Your task to perform on an android device: Search for vegetarian restaurants on Maps Image 0: 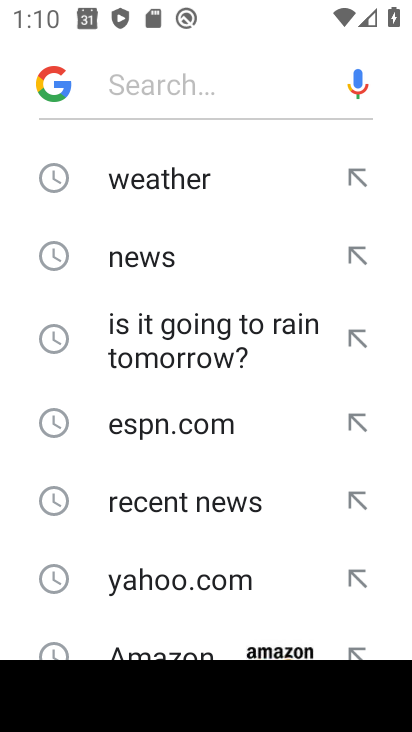
Step 0: press back button
Your task to perform on an android device: Search for vegetarian restaurants on Maps Image 1: 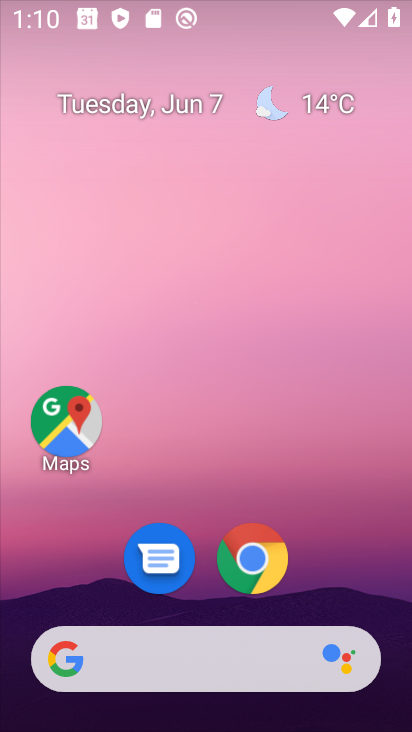
Step 1: press back button
Your task to perform on an android device: Search for vegetarian restaurants on Maps Image 2: 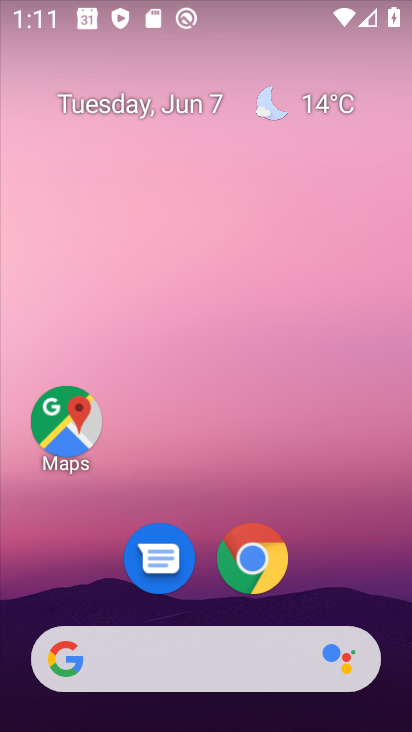
Step 2: click (80, 411)
Your task to perform on an android device: Search for vegetarian restaurants on Maps Image 3: 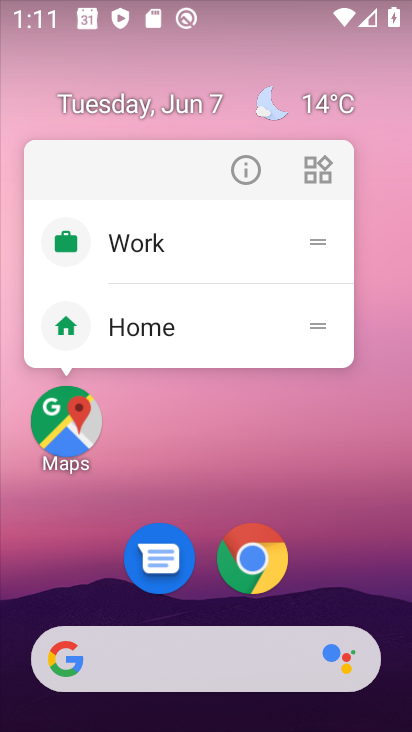
Step 3: click (80, 411)
Your task to perform on an android device: Search for vegetarian restaurants on Maps Image 4: 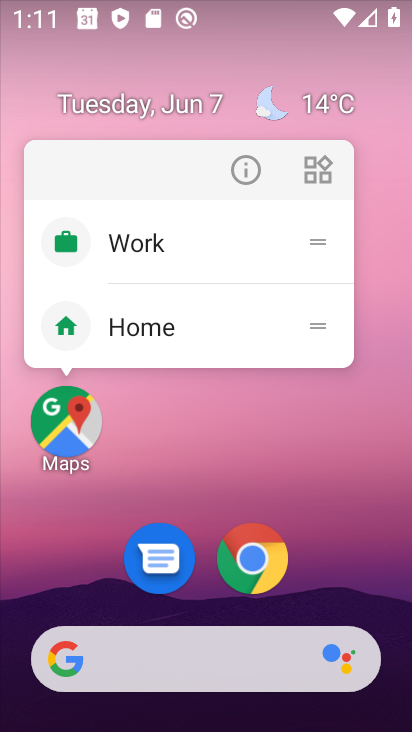
Step 4: click (80, 411)
Your task to perform on an android device: Search for vegetarian restaurants on Maps Image 5: 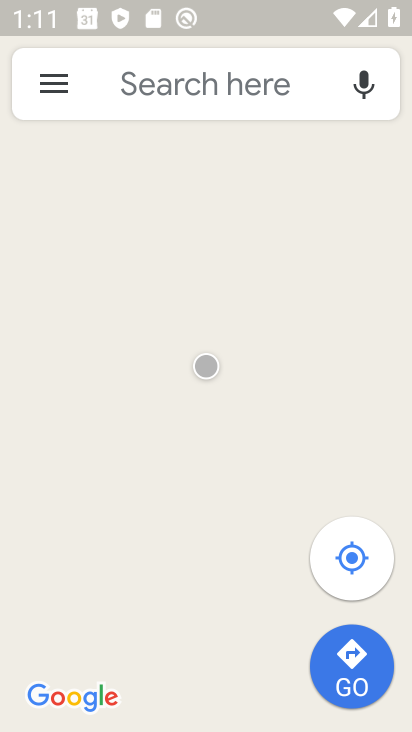
Step 5: click (279, 92)
Your task to perform on an android device: Search for vegetarian restaurants on Maps Image 6: 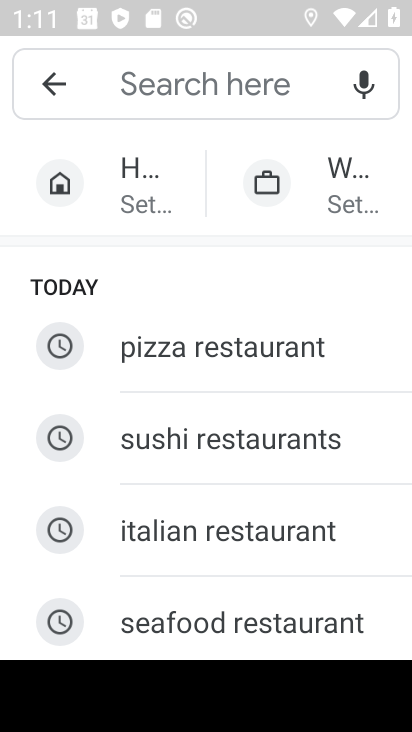
Step 6: drag from (211, 515) to (329, 207)
Your task to perform on an android device: Search for vegetarian restaurants on Maps Image 7: 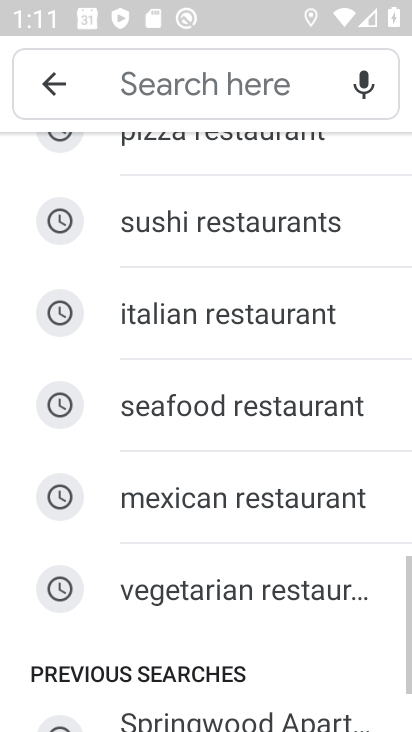
Step 7: click (179, 601)
Your task to perform on an android device: Search for vegetarian restaurants on Maps Image 8: 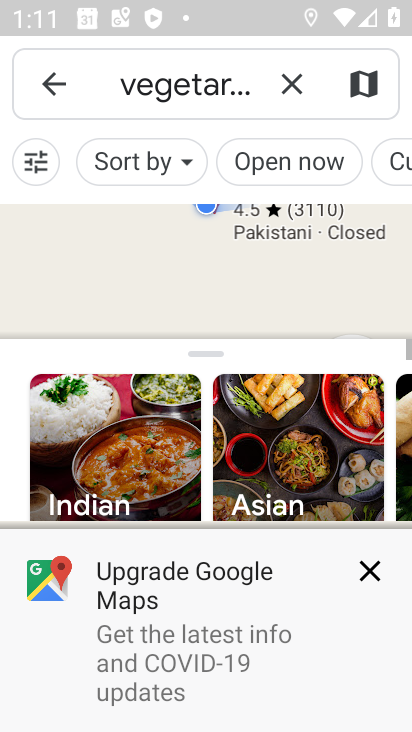
Step 8: task complete